Your task to perform on an android device: open chrome privacy settings Image 0: 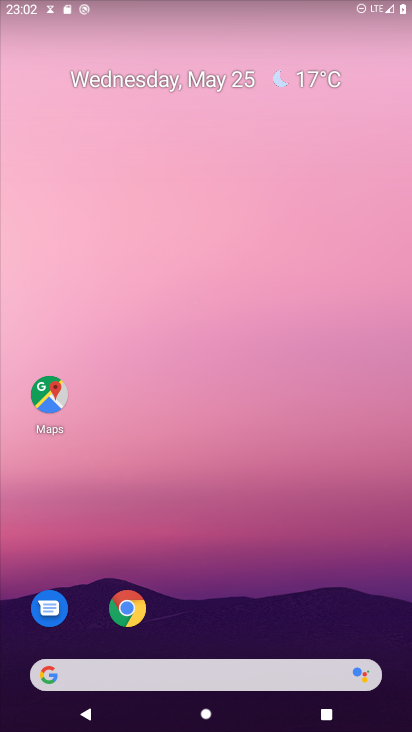
Step 0: drag from (297, 542) to (209, 2)
Your task to perform on an android device: open chrome privacy settings Image 1: 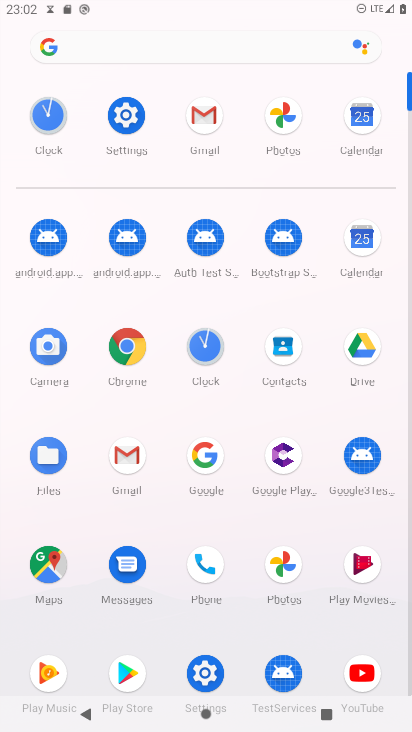
Step 1: click (119, 350)
Your task to perform on an android device: open chrome privacy settings Image 2: 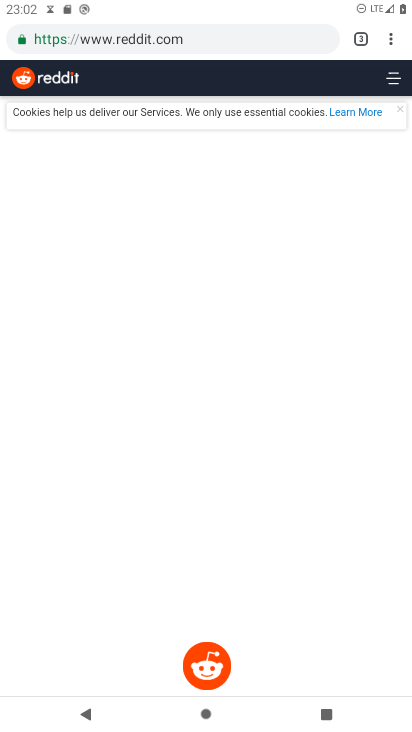
Step 2: click (392, 36)
Your task to perform on an android device: open chrome privacy settings Image 3: 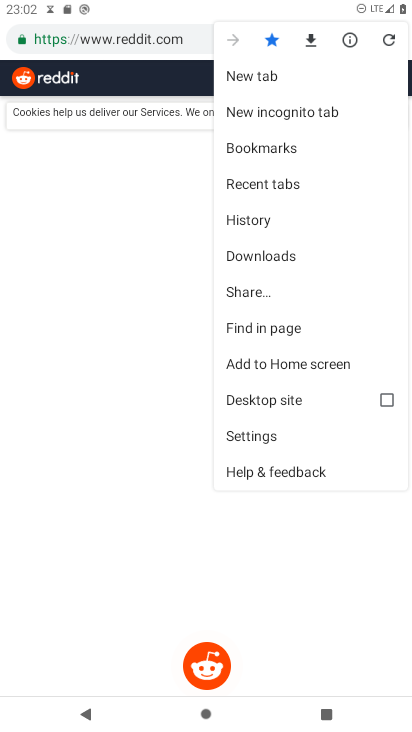
Step 3: click (269, 436)
Your task to perform on an android device: open chrome privacy settings Image 4: 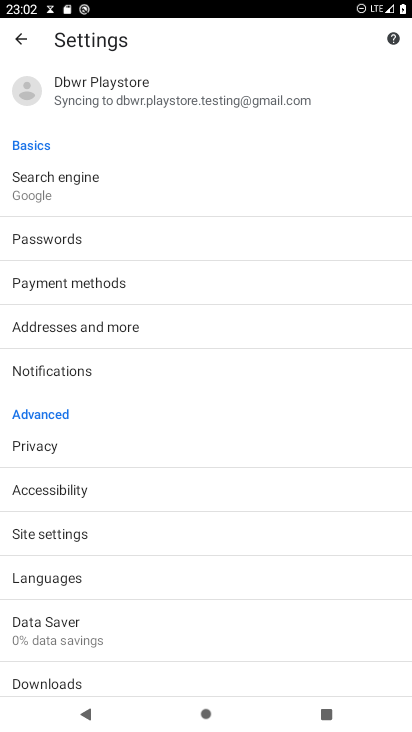
Step 4: click (97, 453)
Your task to perform on an android device: open chrome privacy settings Image 5: 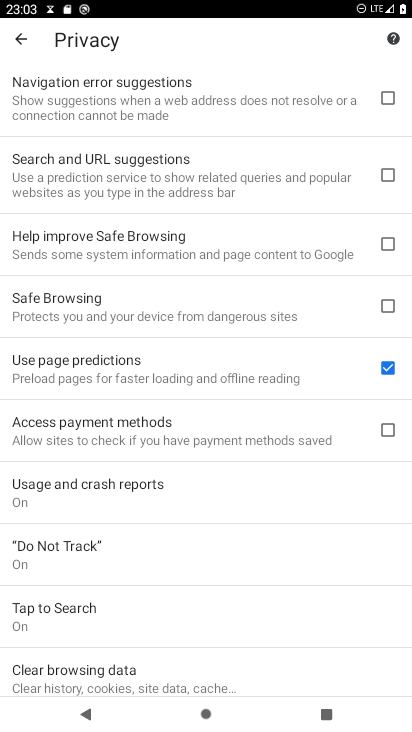
Step 5: task complete